Your task to perform on an android device: What's on my calendar tomorrow? Image 0: 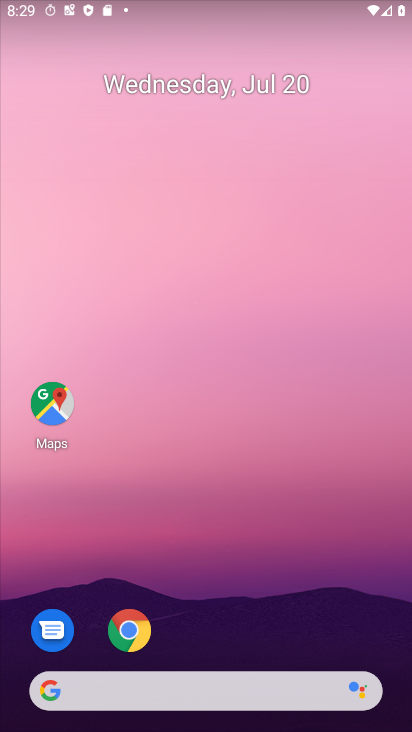
Step 0: drag from (223, 556) to (237, 223)
Your task to perform on an android device: What's on my calendar tomorrow? Image 1: 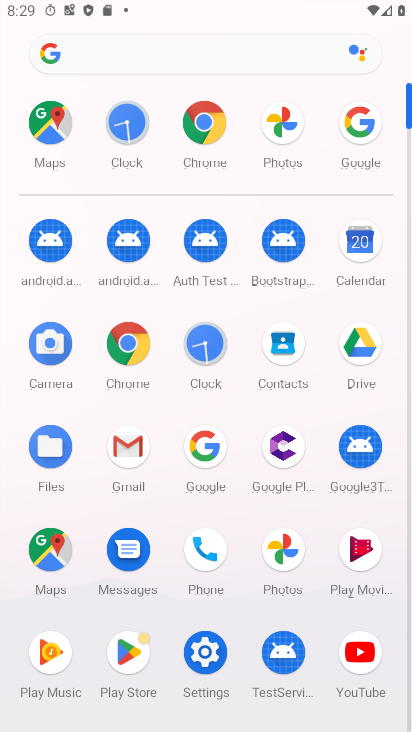
Step 1: click (375, 255)
Your task to perform on an android device: What's on my calendar tomorrow? Image 2: 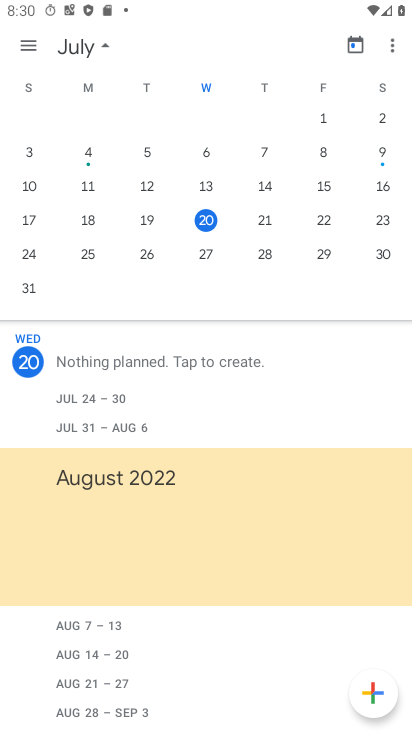
Step 2: click (264, 220)
Your task to perform on an android device: What's on my calendar tomorrow? Image 3: 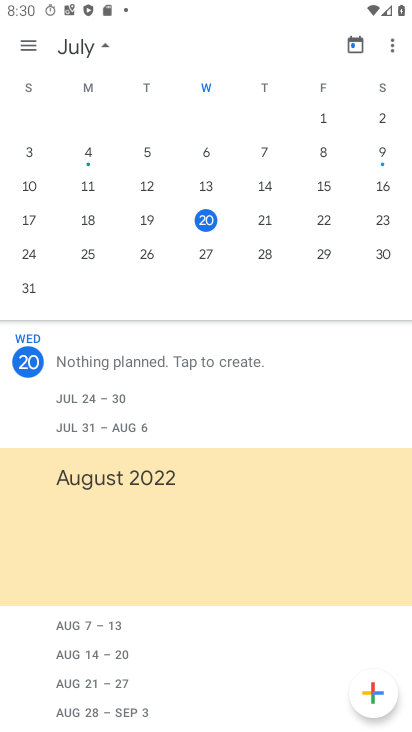
Step 3: click (261, 231)
Your task to perform on an android device: What's on my calendar tomorrow? Image 4: 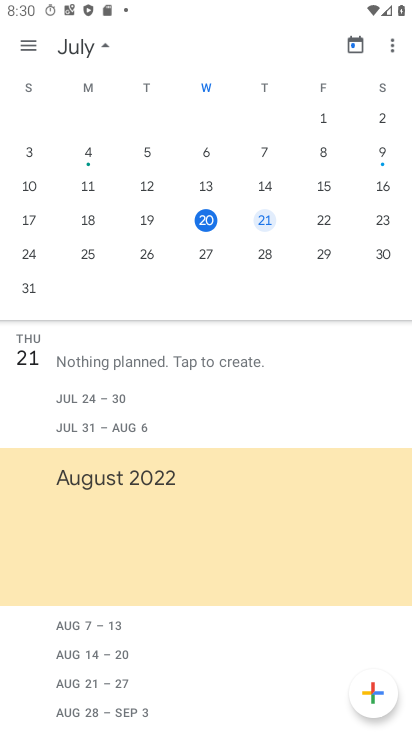
Step 4: task complete